Your task to perform on an android device: Go to Yahoo.com Image 0: 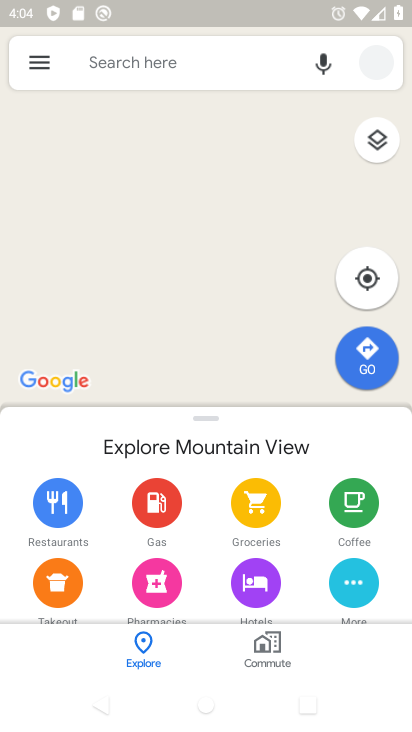
Step 0: drag from (302, 527) to (340, 189)
Your task to perform on an android device: Go to Yahoo.com Image 1: 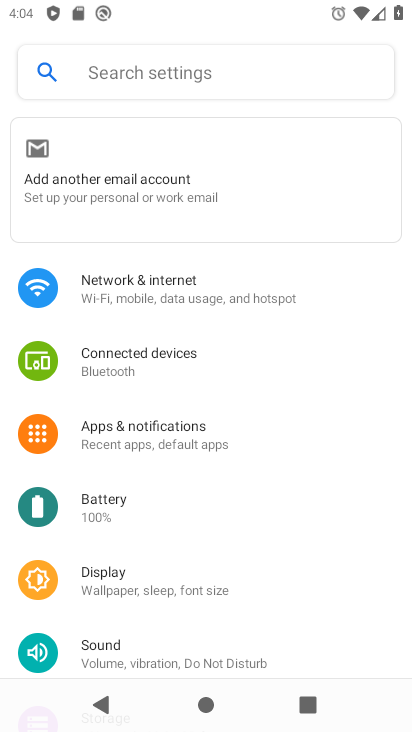
Step 1: press home button
Your task to perform on an android device: Go to Yahoo.com Image 2: 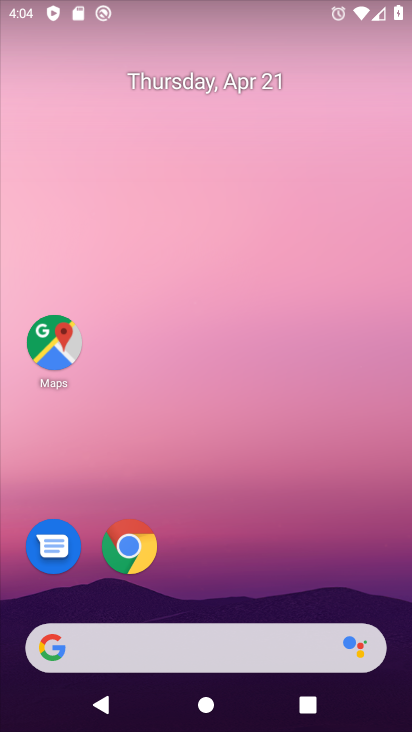
Step 2: drag from (272, 547) to (317, 139)
Your task to perform on an android device: Go to Yahoo.com Image 3: 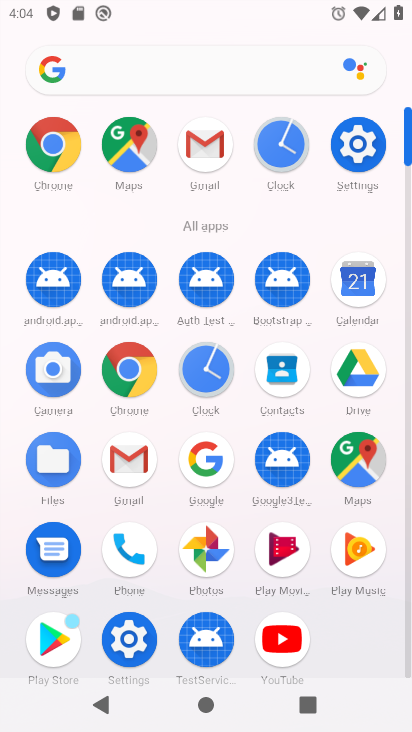
Step 3: click (129, 373)
Your task to perform on an android device: Go to Yahoo.com Image 4: 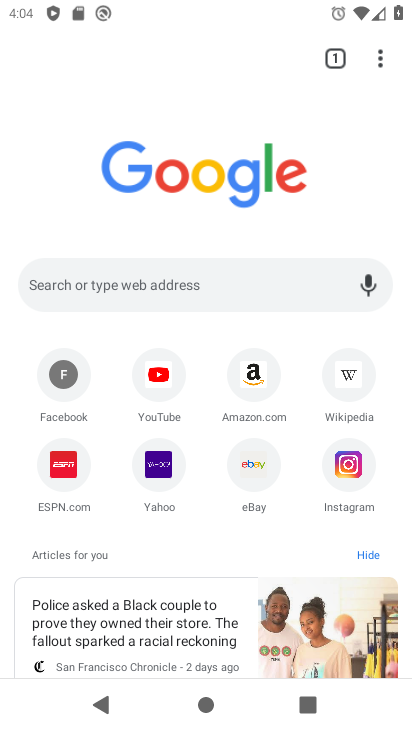
Step 4: click (162, 472)
Your task to perform on an android device: Go to Yahoo.com Image 5: 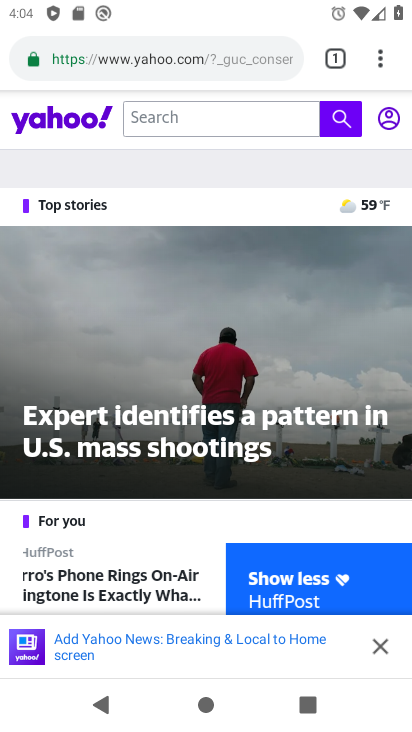
Step 5: task complete